Your task to perform on an android device: What's on my calendar tomorrow? Image 0: 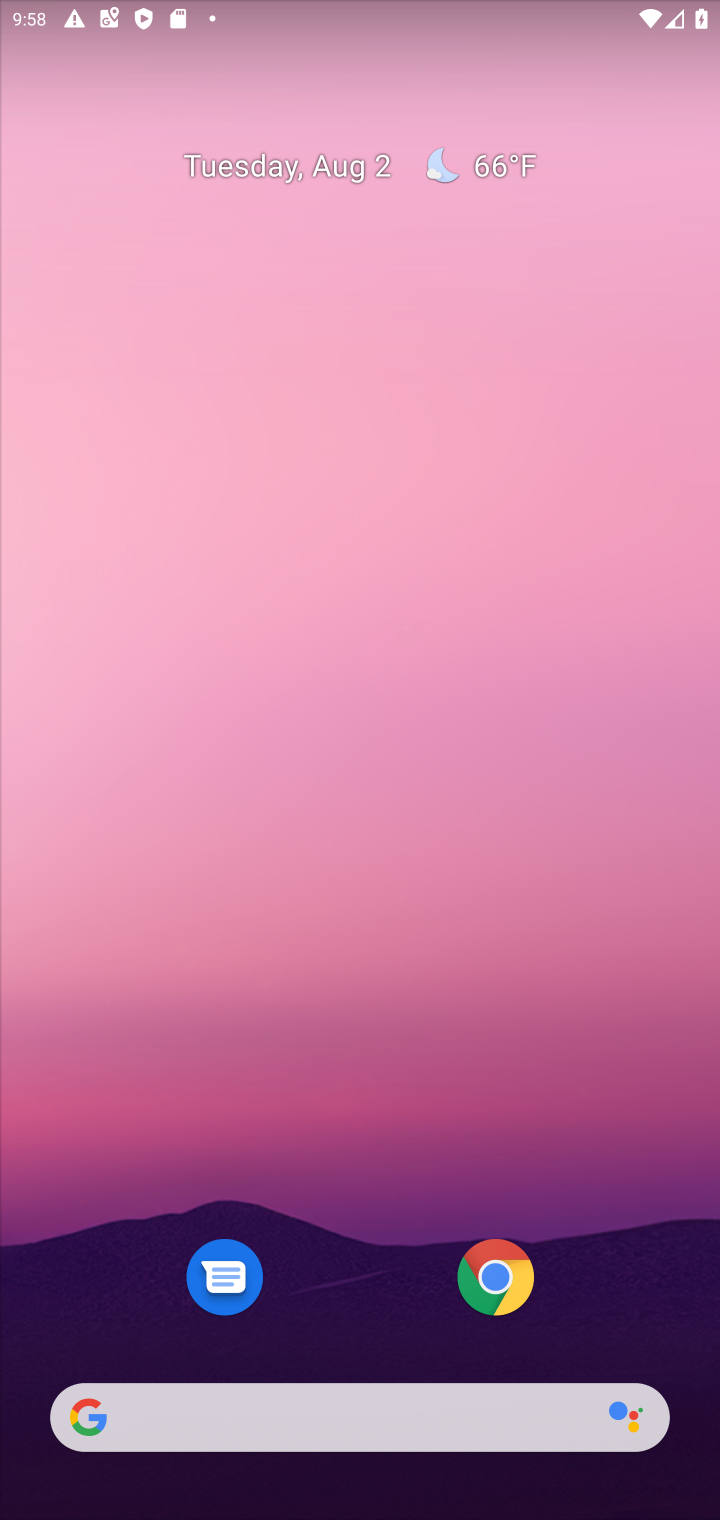
Step 0: drag from (571, 1023) to (564, 463)
Your task to perform on an android device: What's on my calendar tomorrow? Image 1: 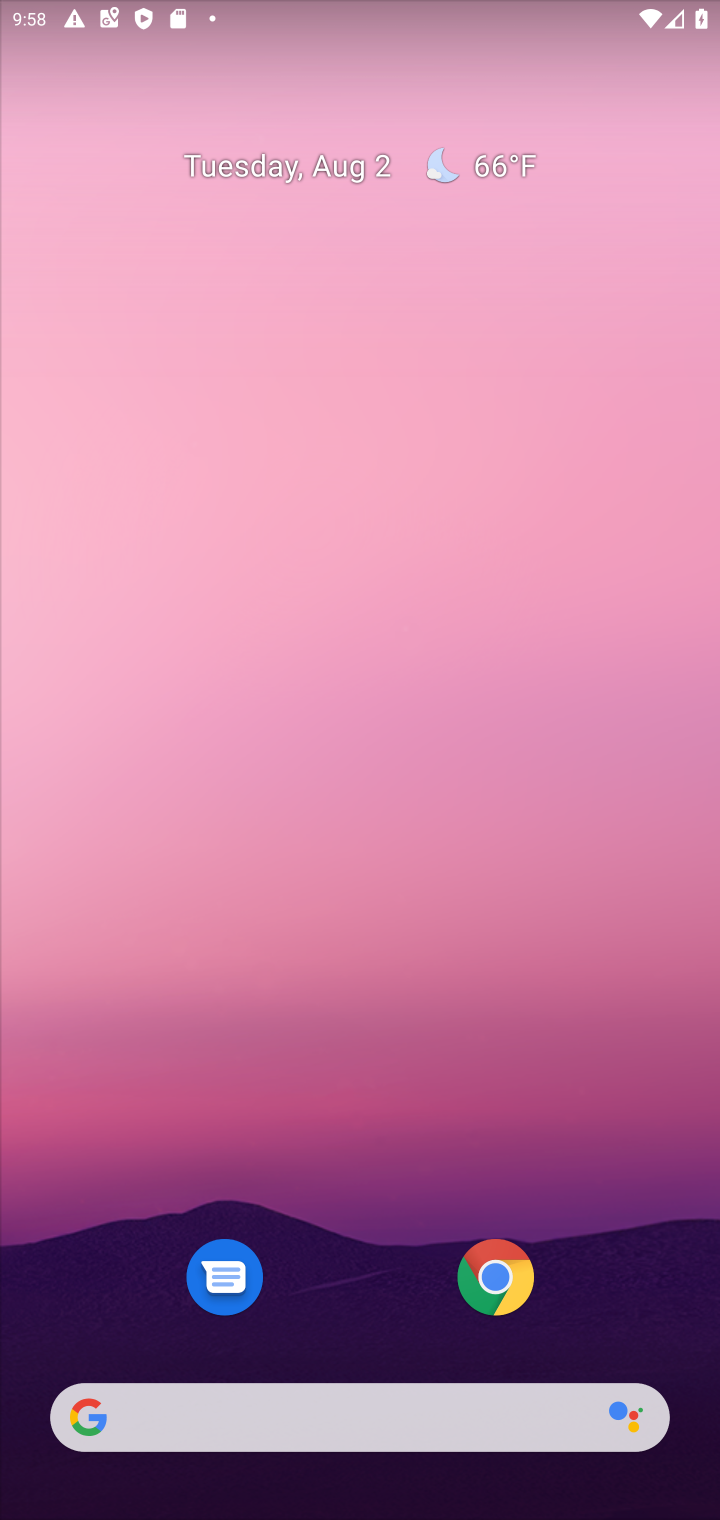
Step 1: drag from (549, 1083) to (539, 495)
Your task to perform on an android device: What's on my calendar tomorrow? Image 2: 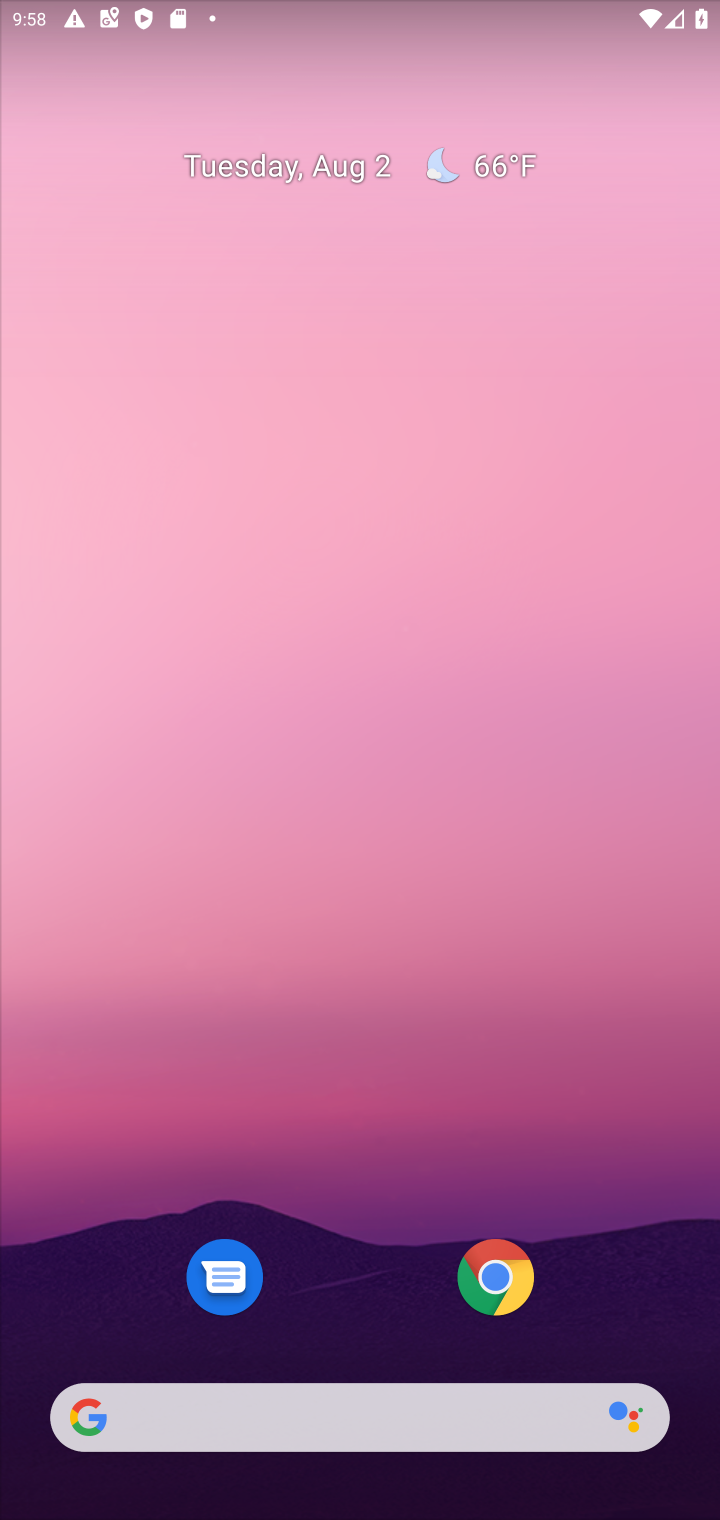
Step 2: click (539, 495)
Your task to perform on an android device: What's on my calendar tomorrow? Image 3: 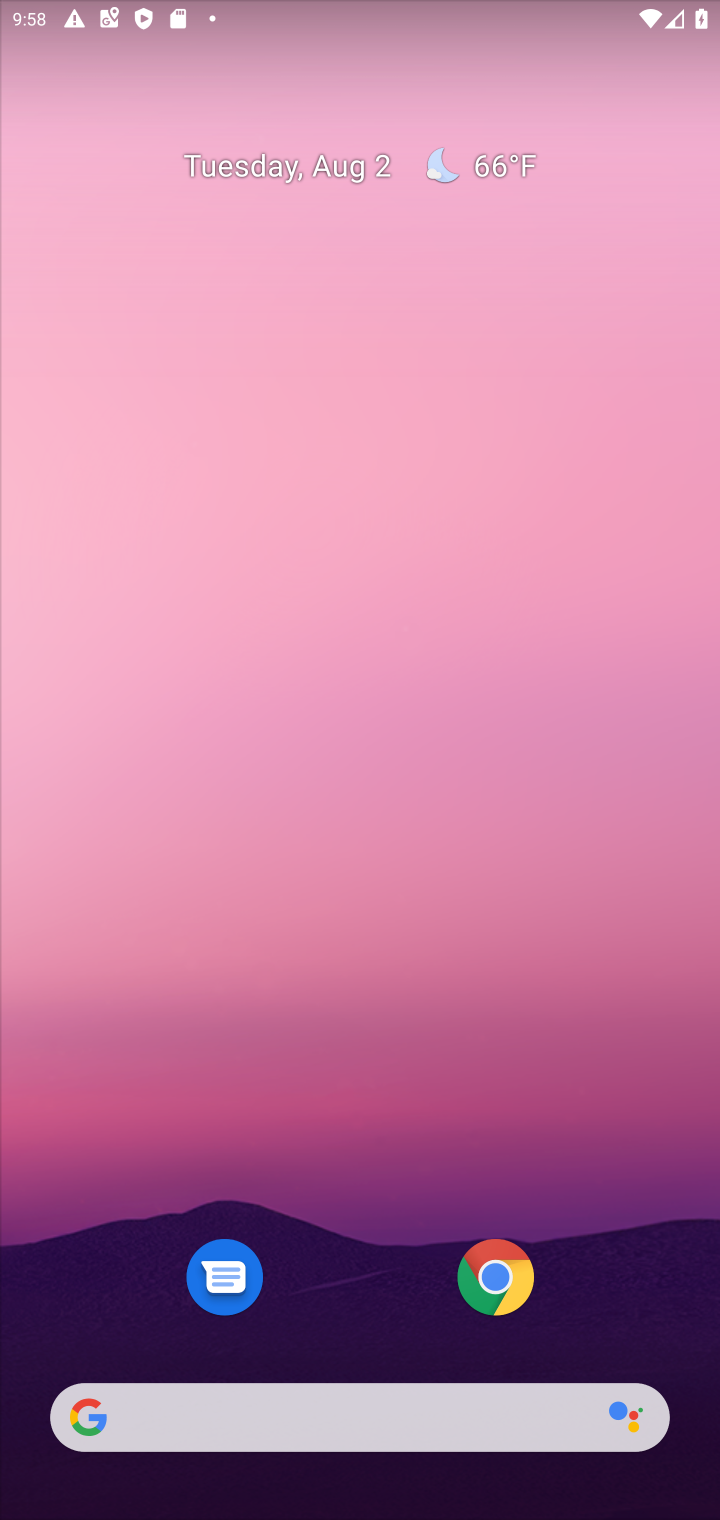
Step 3: drag from (520, 1090) to (536, 240)
Your task to perform on an android device: What's on my calendar tomorrow? Image 4: 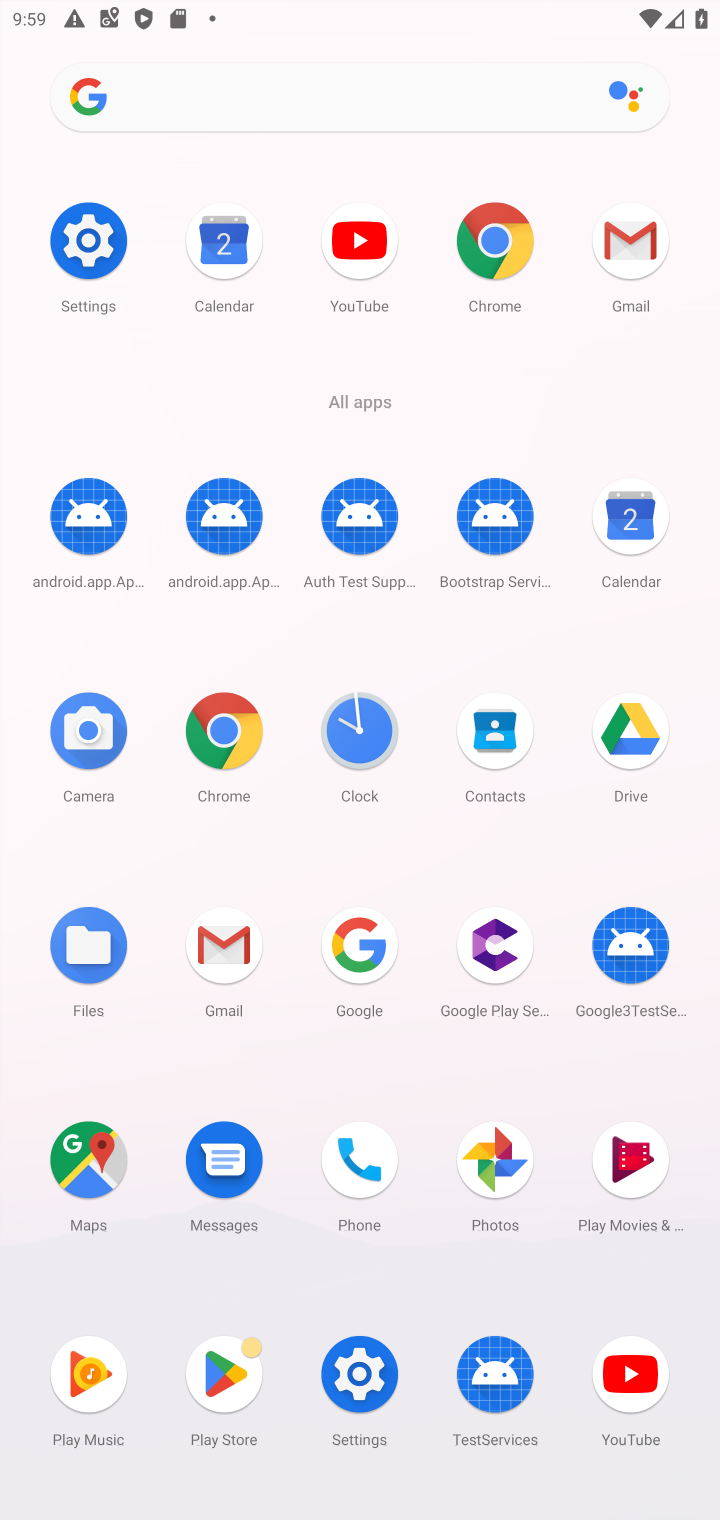
Step 4: click (634, 519)
Your task to perform on an android device: What's on my calendar tomorrow? Image 5: 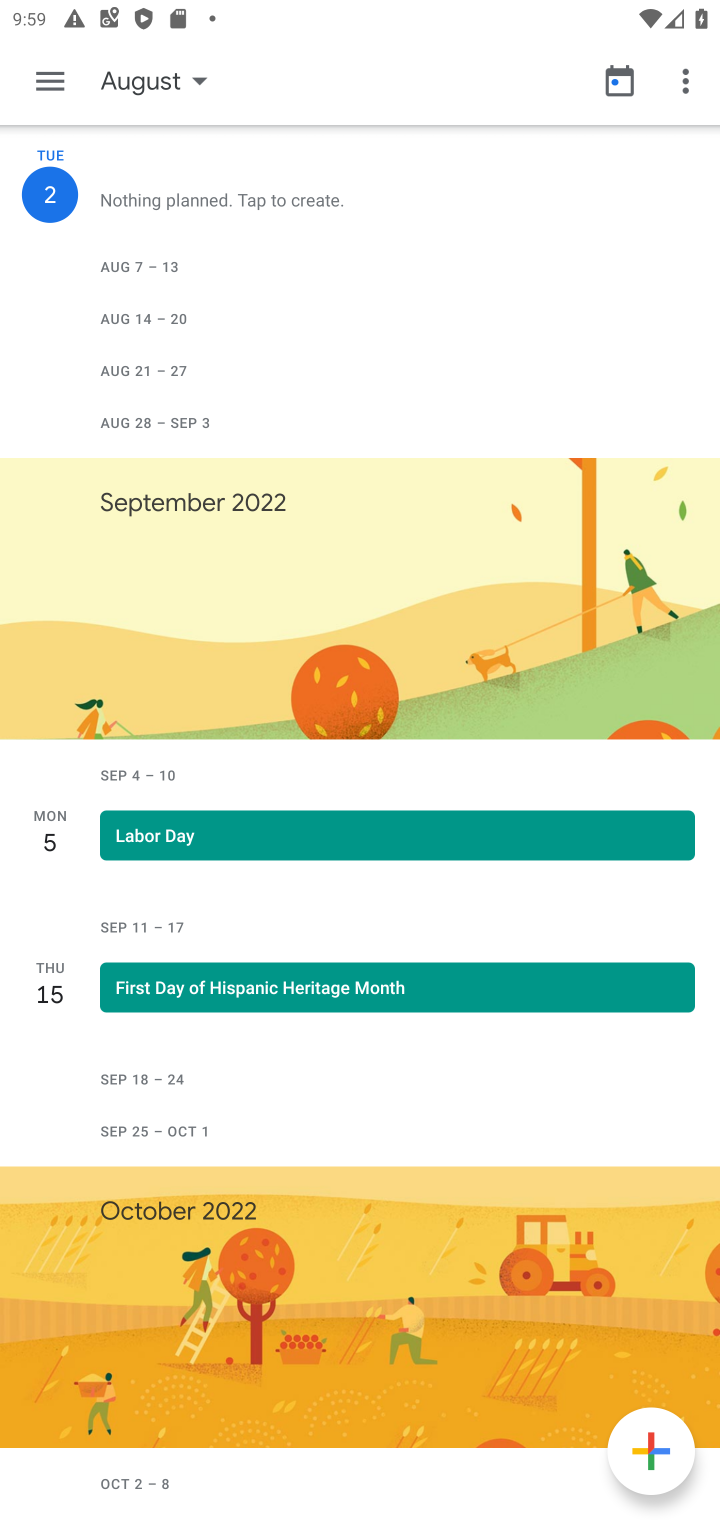
Step 5: task complete